Your task to perform on an android device: What's the weather today? Image 0: 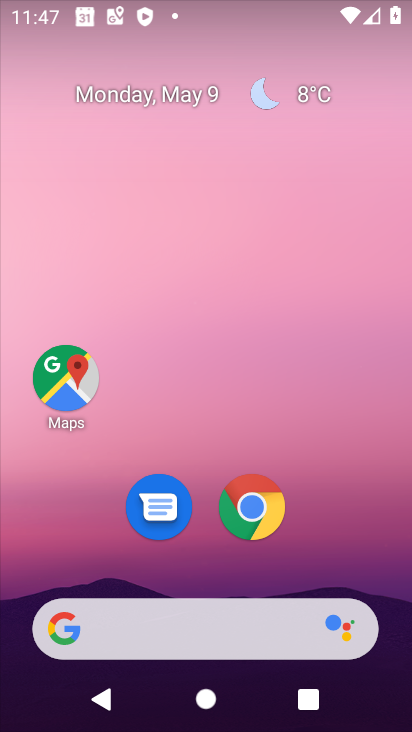
Step 0: click (298, 129)
Your task to perform on an android device: What's the weather today? Image 1: 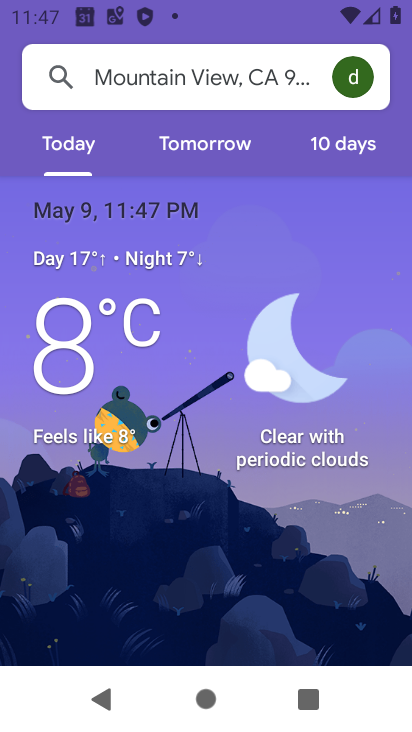
Step 1: task complete